Your task to perform on an android device: show emergency info Image 0: 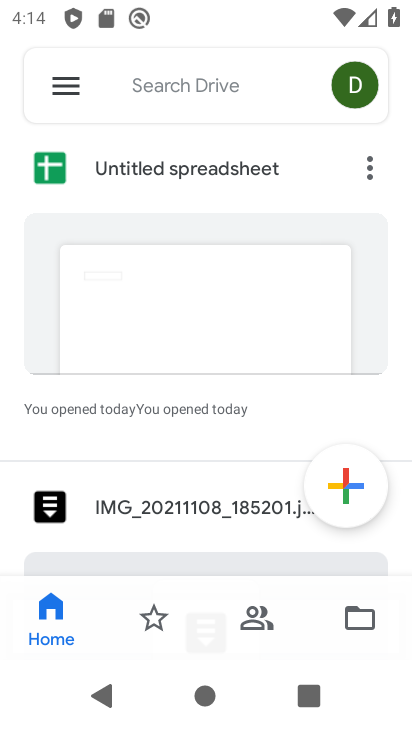
Step 0: press back button
Your task to perform on an android device: show emergency info Image 1: 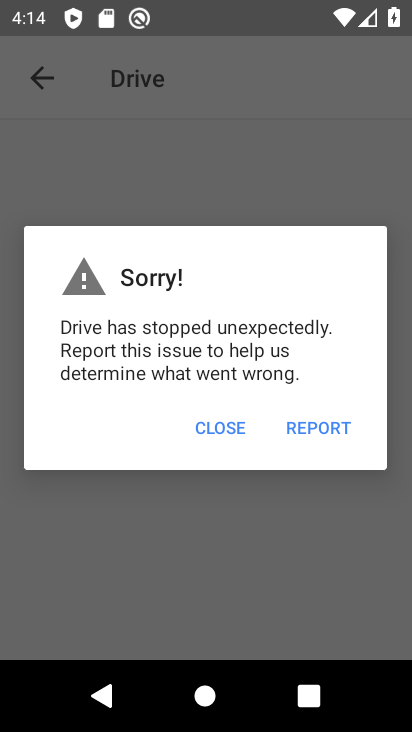
Step 1: press home button
Your task to perform on an android device: show emergency info Image 2: 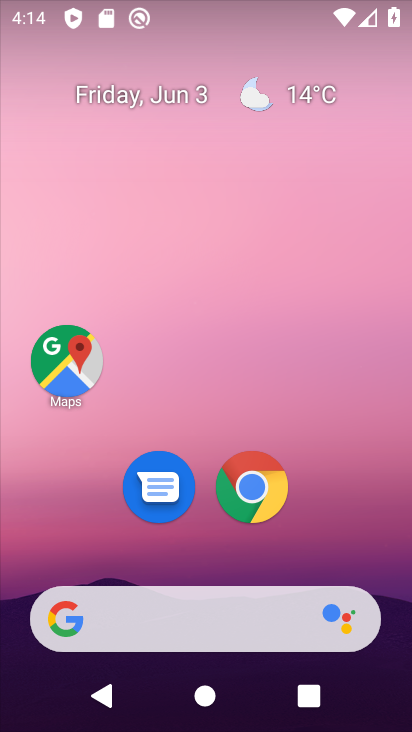
Step 2: drag from (176, 573) to (189, 121)
Your task to perform on an android device: show emergency info Image 3: 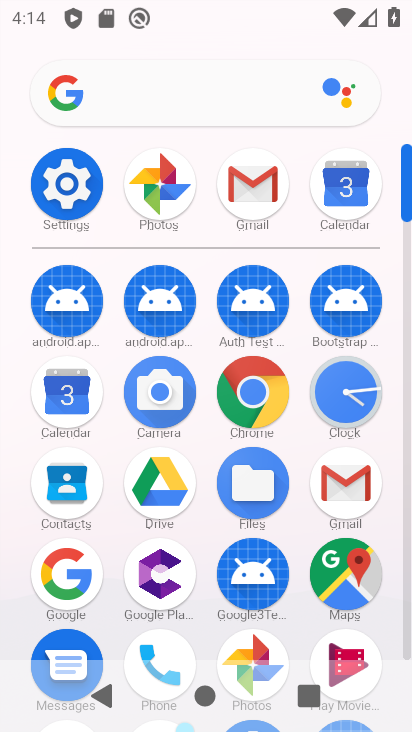
Step 3: click (56, 166)
Your task to perform on an android device: show emergency info Image 4: 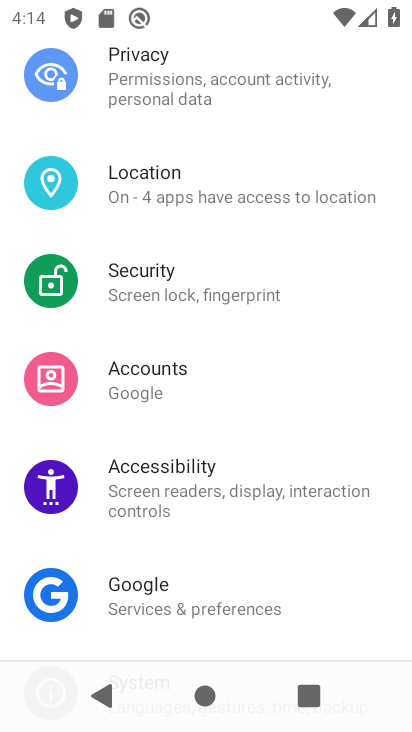
Step 4: drag from (162, 566) to (246, 0)
Your task to perform on an android device: show emergency info Image 5: 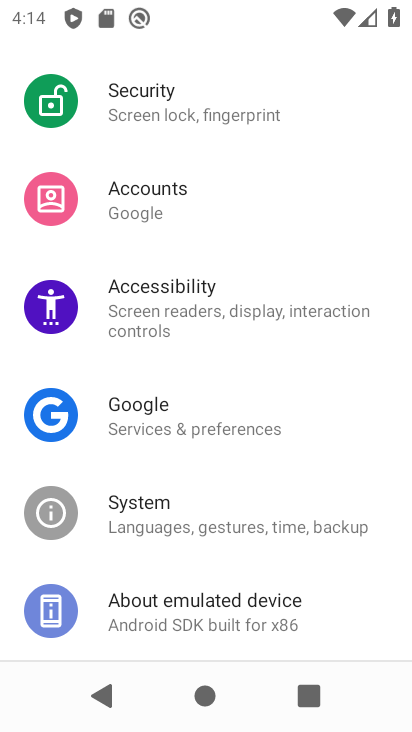
Step 5: click (179, 636)
Your task to perform on an android device: show emergency info Image 6: 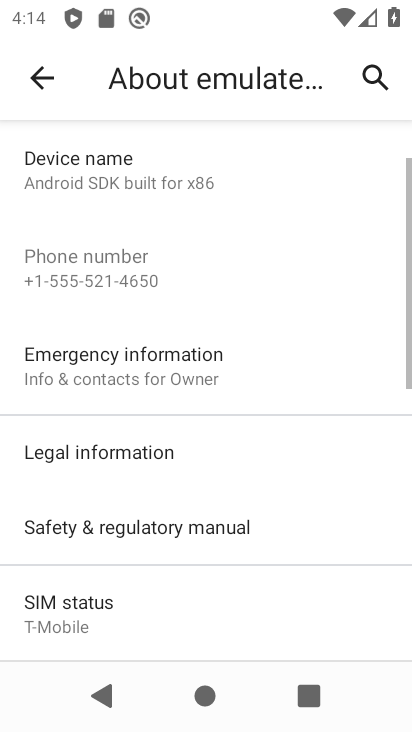
Step 6: click (112, 368)
Your task to perform on an android device: show emergency info Image 7: 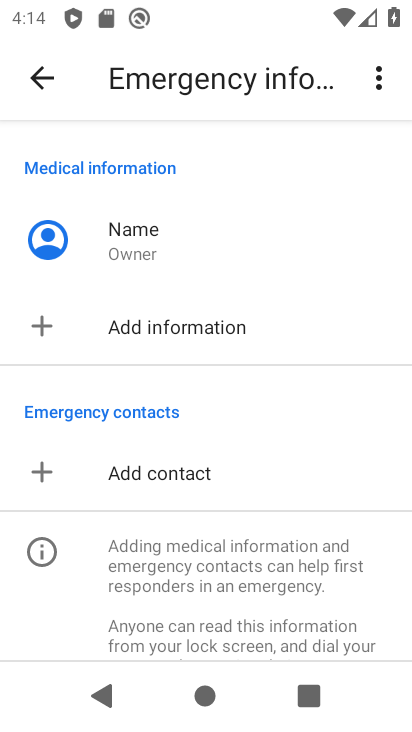
Step 7: task complete